Your task to perform on an android device: add a contact in the contacts app Image 0: 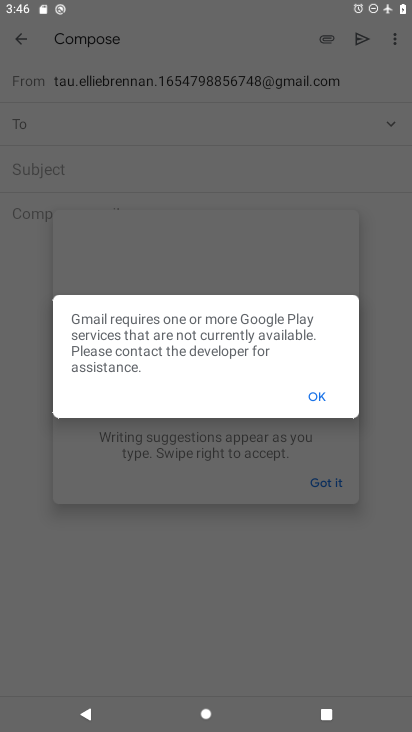
Step 0: press home button
Your task to perform on an android device: add a contact in the contacts app Image 1: 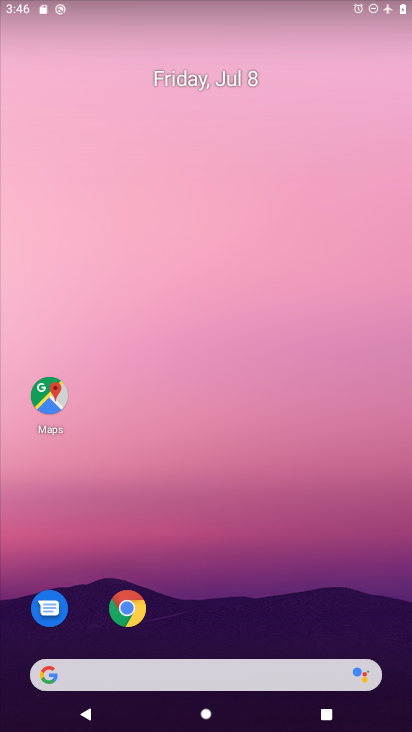
Step 1: drag from (320, 600) to (302, 45)
Your task to perform on an android device: add a contact in the contacts app Image 2: 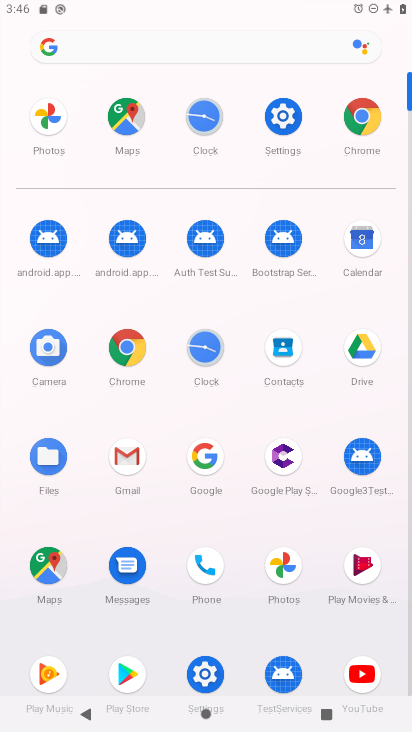
Step 2: click (289, 351)
Your task to perform on an android device: add a contact in the contacts app Image 3: 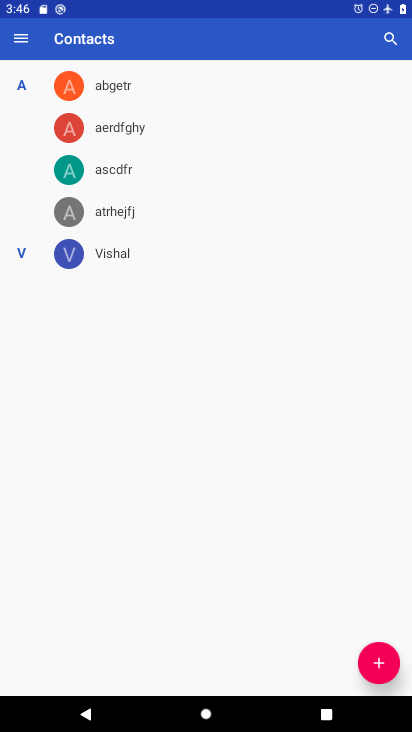
Step 3: click (376, 663)
Your task to perform on an android device: add a contact in the contacts app Image 4: 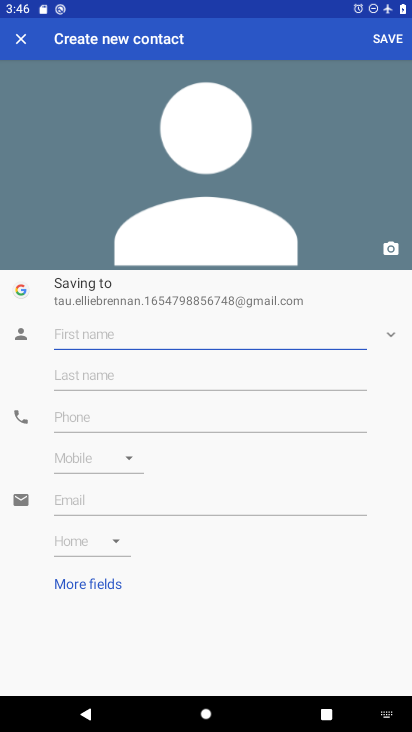
Step 4: type ""
Your task to perform on an android device: add a contact in the contacts app Image 5: 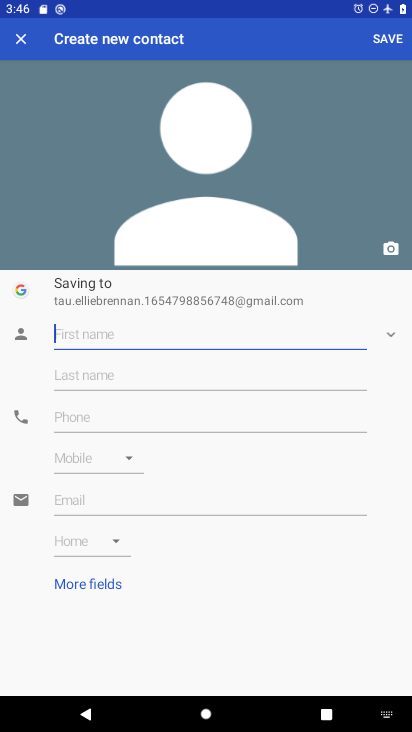
Step 5: type "komal"
Your task to perform on an android device: add a contact in the contacts app Image 6: 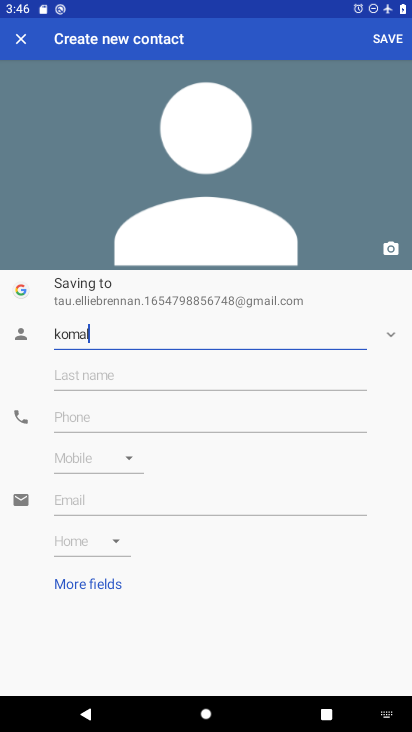
Step 6: click (101, 407)
Your task to perform on an android device: add a contact in the contacts app Image 7: 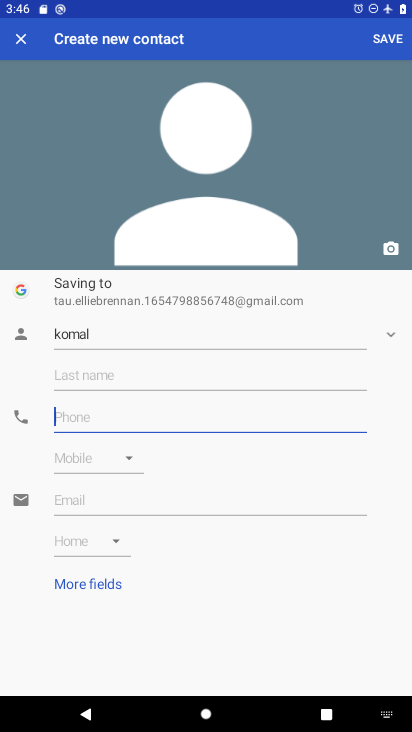
Step 7: type "9876987676"
Your task to perform on an android device: add a contact in the contacts app Image 8: 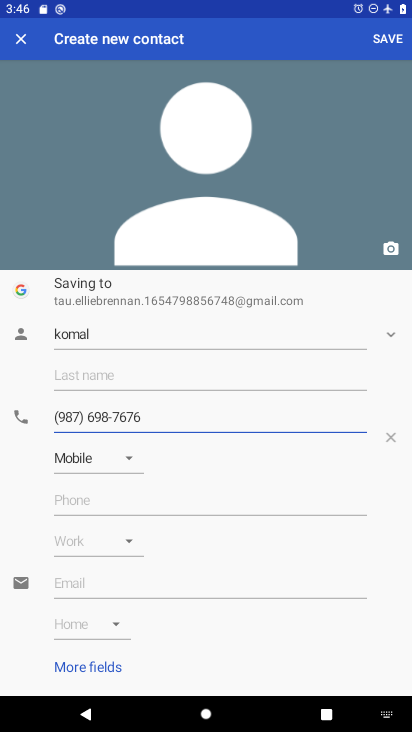
Step 8: click (396, 39)
Your task to perform on an android device: add a contact in the contacts app Image 9: 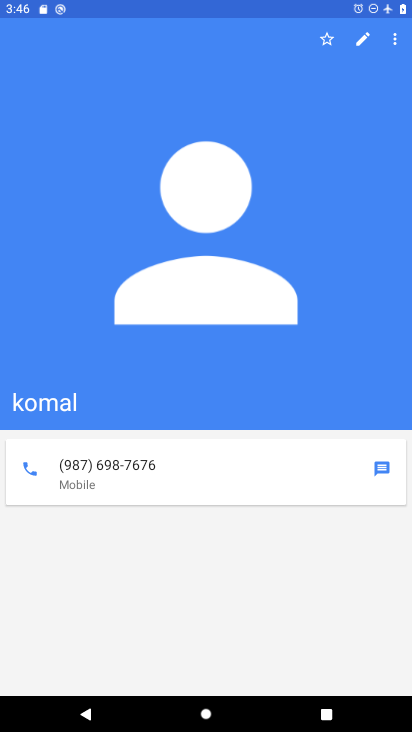
Step 9: task complete